Your task to perform on an android device: Open the calendar app, open the side menu, and click the "Day" option Image 0: 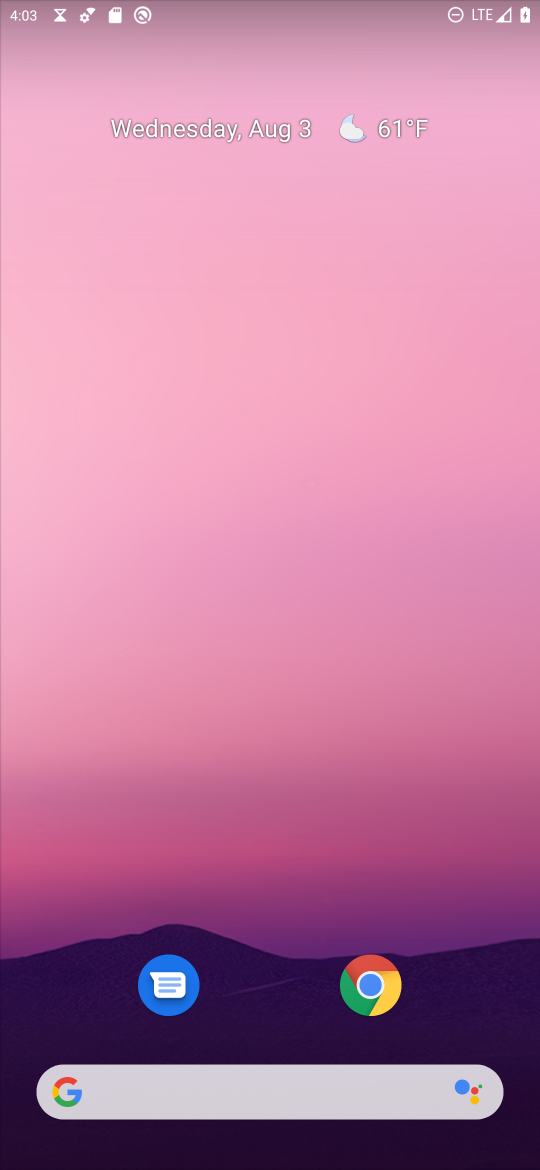
Step 0: drag from (291, 808) to (319, 220)
Your task to perform on an android device: Open the calendar app, open the side menu, and click the "Day" option Image 1: 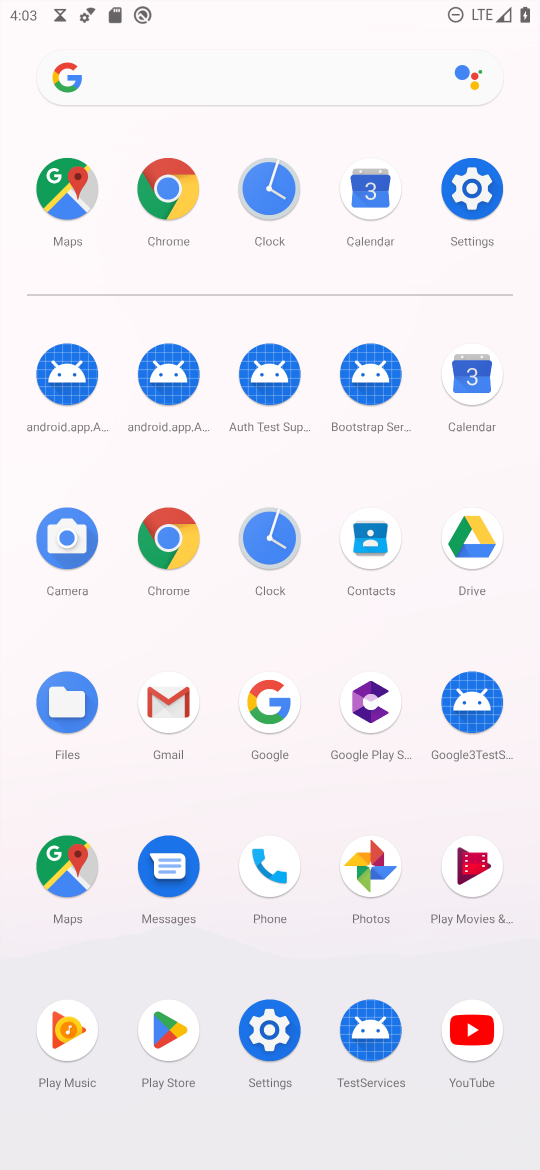
Step 1: click (483, 374)
Your task to perform on an android device: Open the calendar app, open the side menu, and click the "Day" option Image 2: 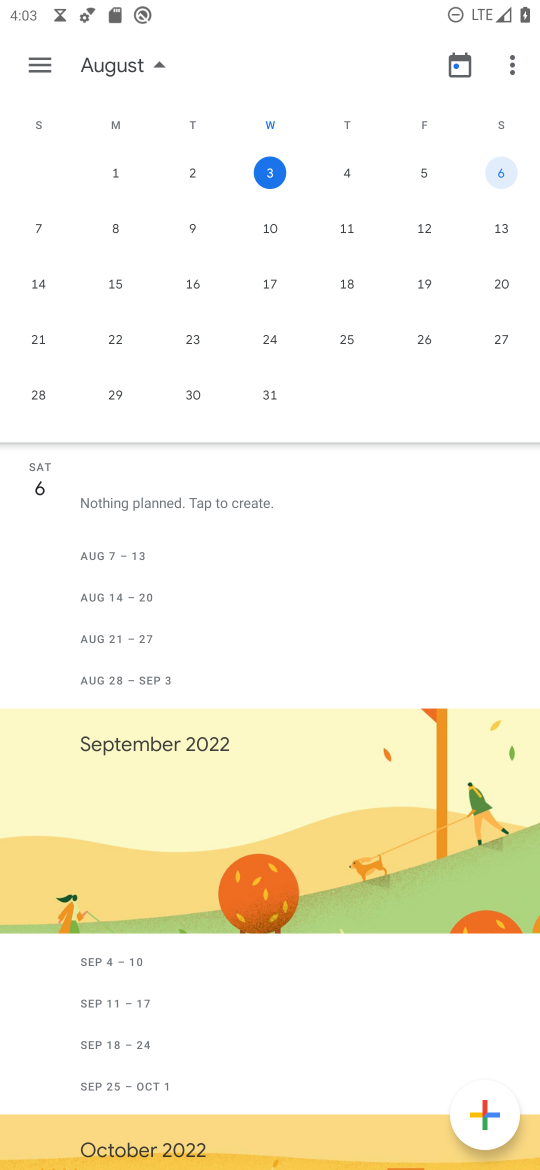
Step 2: click (34, 72)
Your task to perform on an android device: Open the calendar app, open the side menu, and click the "Day" option Image 3: 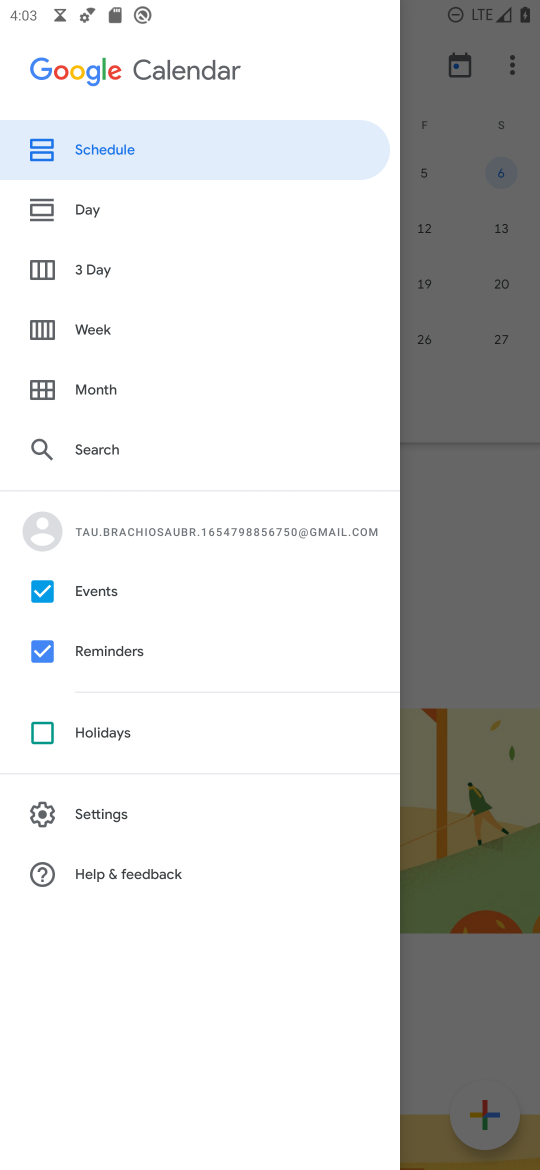
Step 3: click (112, 206)
Your task to perform on an android device: Open the calendar app, open the side menu, and click the "Day" option Image 4: 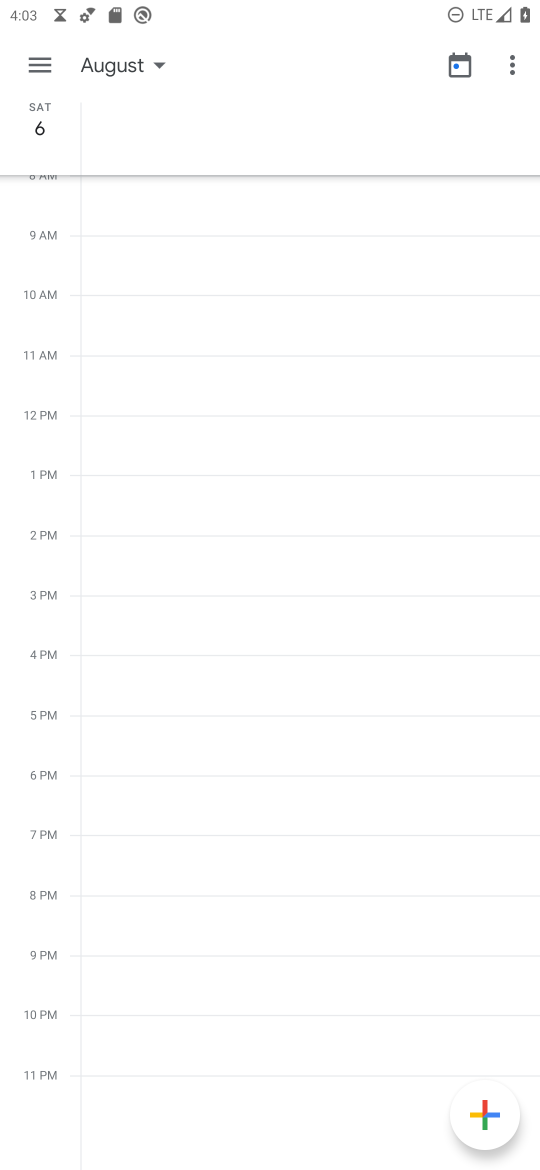
Step 4: task complete